Your task to perform on an android device: toggle improve location accuracy Image 0: 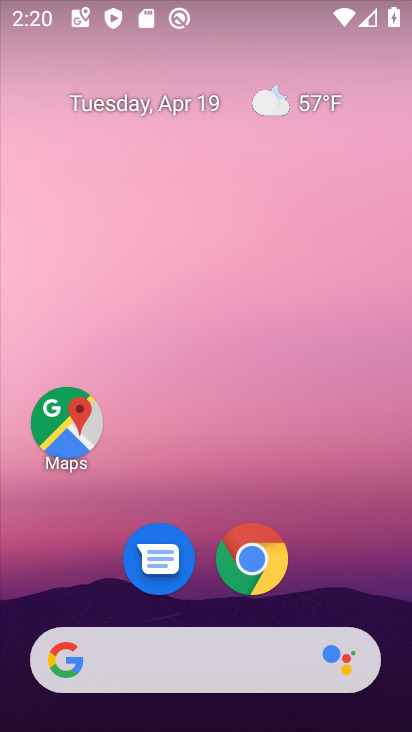
Step 0: drag from (204, 595) to (167, 73)
Your task to perform on an android device: toggle improve location accuracy Image 1: 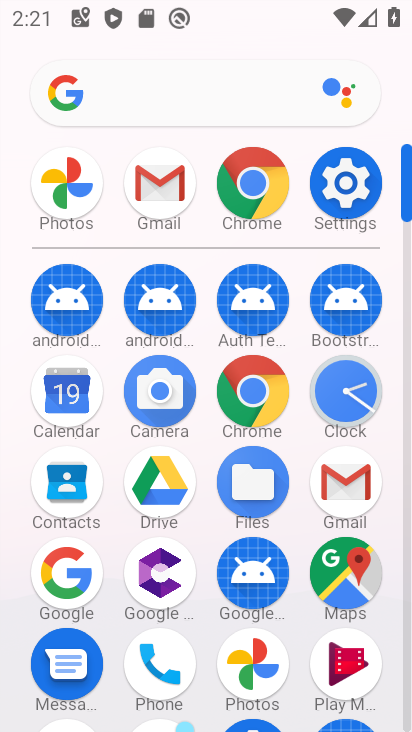
Step 1: click (341, 173)
Your task to perform on an android device: toggle improve location accuracy Image 2: 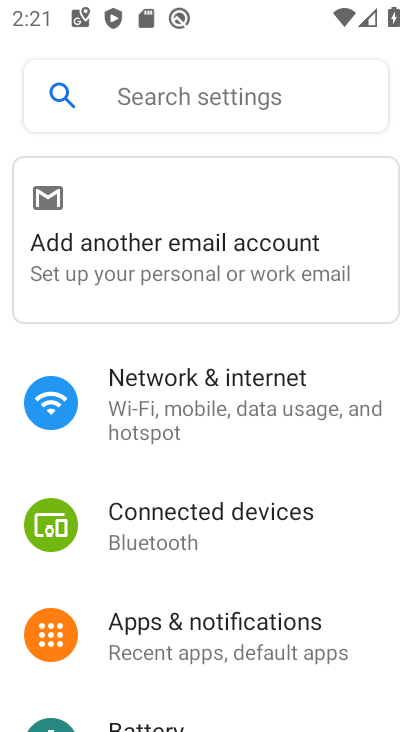
Step 2: drag from (202, 685) to (212, 185)
Your task to perform on an android device: toggle improve location accuracy Image 3: 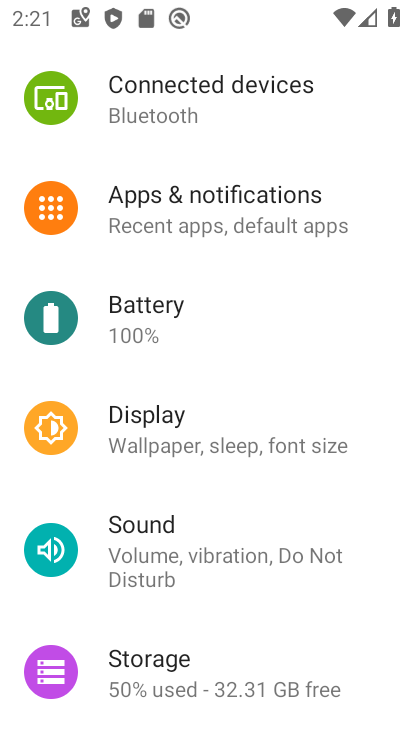
Step 3: drag from (198, 660) to (192, 154)
Your task to perform on an android device: toggle improve location accuracy Image 4: 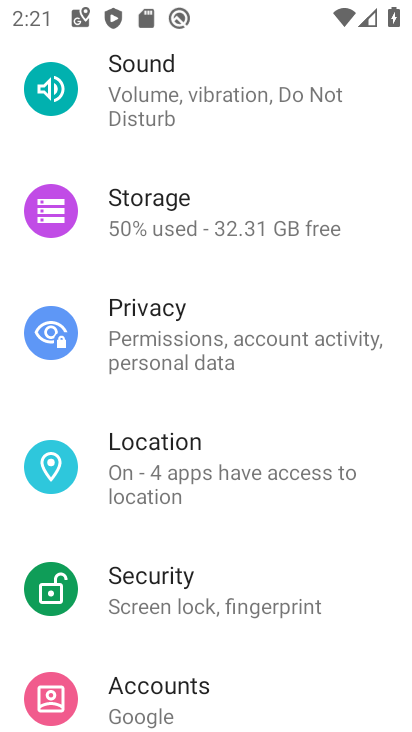
Step 4: click (217, 443)
Your task to perform on an android device: toggle improve location accuracy Image 5: 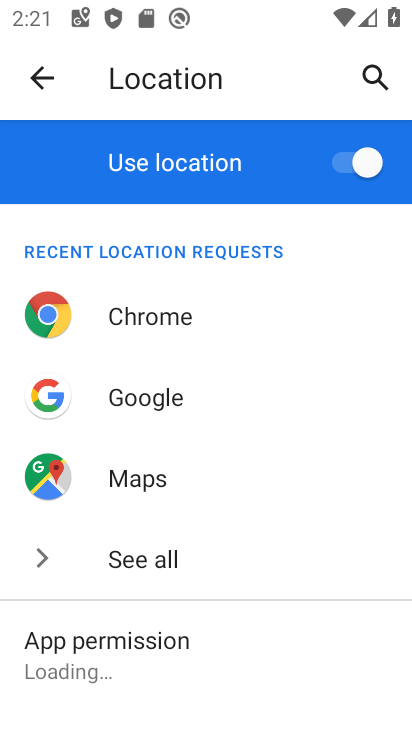
Step 5: drag from (206, 646) to (224, 185)
Your task to perform on an android device: toggle improve location accuracy Image 6: 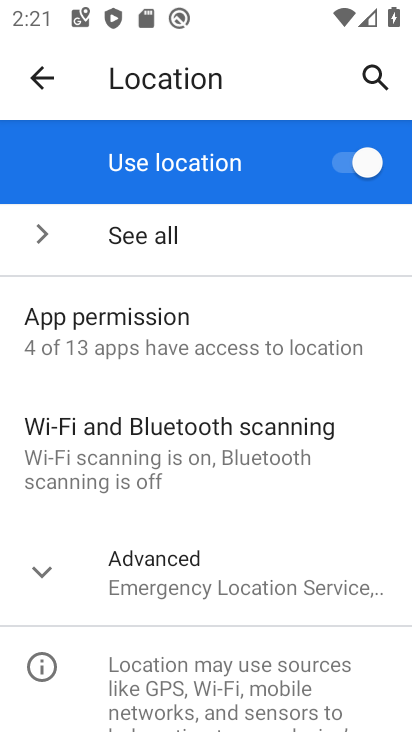
Step 6: click (42, 559)
Your task to perform on an android device: toggle improve location accuracy Image 7: 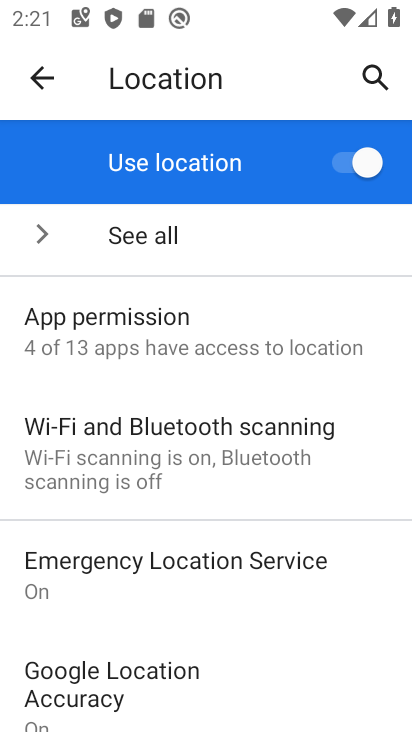
Step 7: click (162, 690)
Your task to perform on an android device: toggle improve location accuracy Image 8: 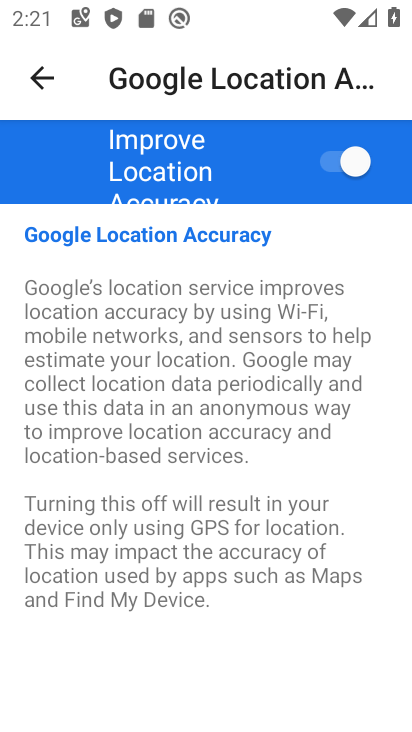
Step 8: click (332, 154)
Your task to perform on an android device: toggle improve location accuracy Image 9: 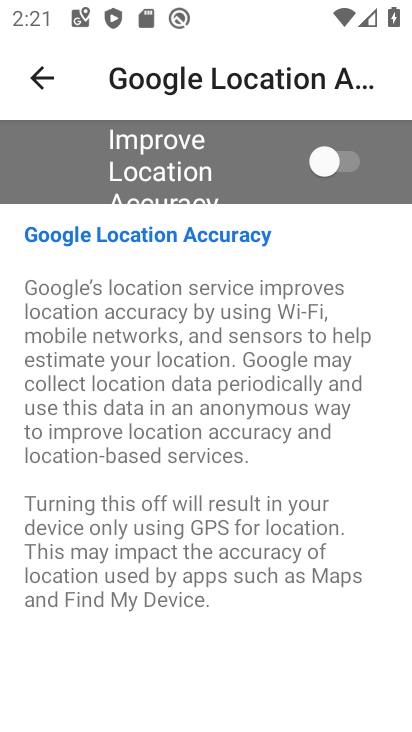
Step 9: task complete